Your task to perform on an android device: set the timer Image 0: 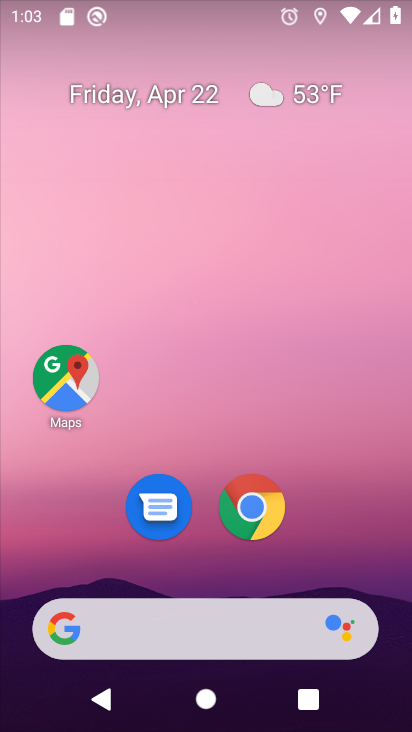
Step 0: drag from (357, 493) to (324, 142)
Your task to perform on an android device: set the timer Image 1: 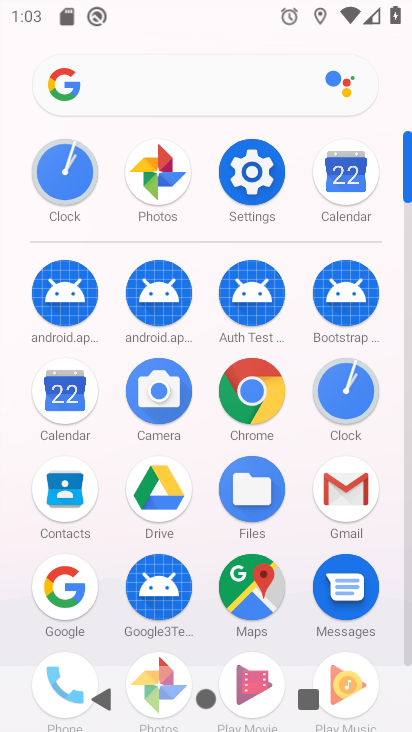
Step 1: click (351, 399)
Your task to perform on an android device: set the timer Image 2: 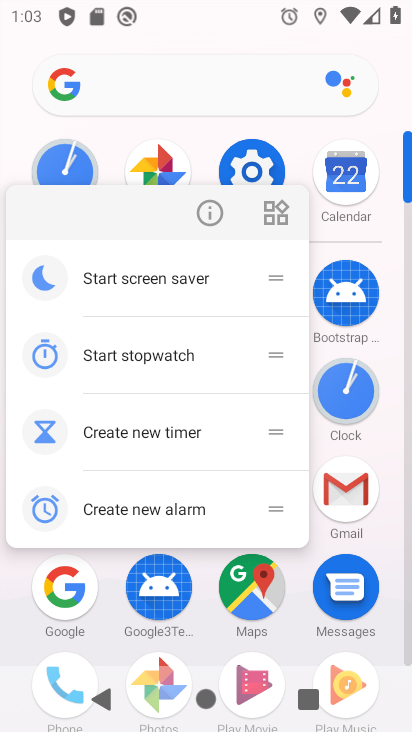
Step 2: click (351, 399)
Your task to perform on an android device: set the timer Image 3: 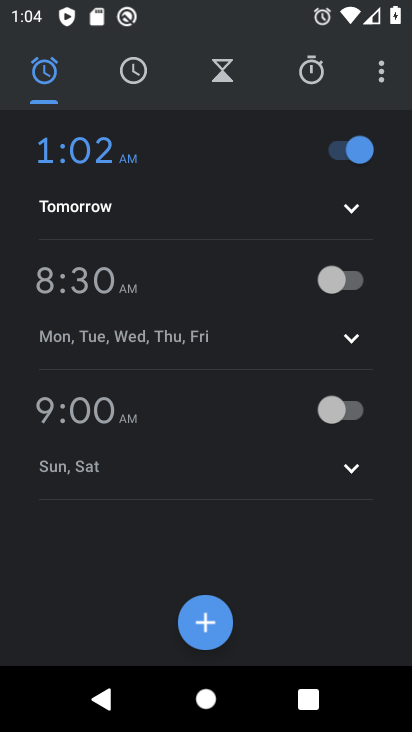
Step 3: click (225, 74)
Your task to perform on an android device: set the timer Image 4: 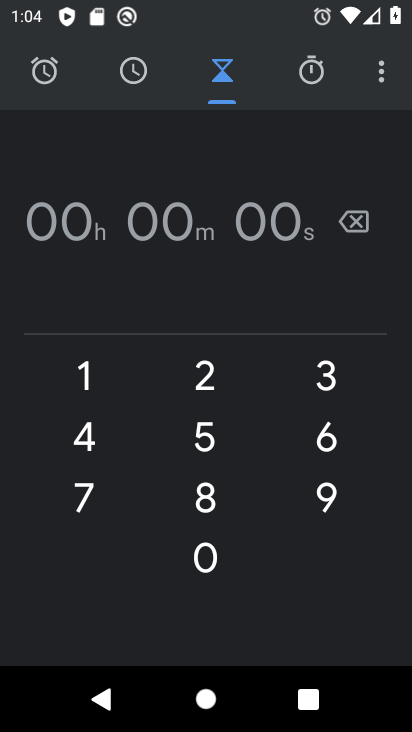
Step 4: click (89, 452)
Your task to perform on an android device: set the timer Image 5: 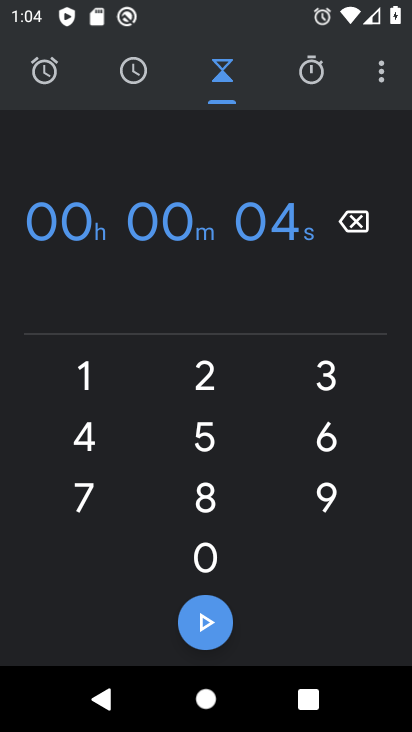
Step 5: click (89, 452)
Your task to perform on an android device: set the timer Image 6: 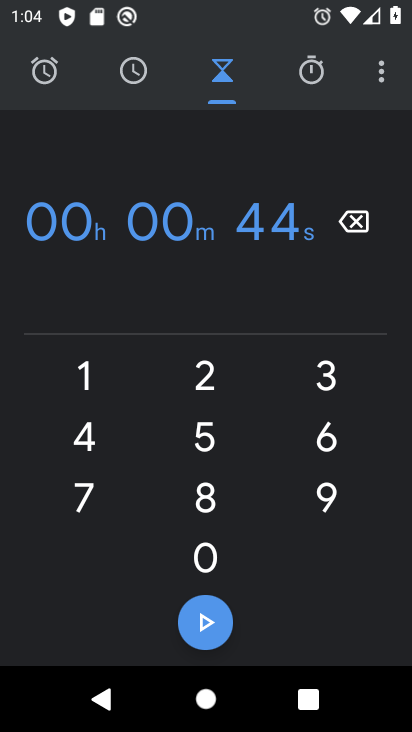
Step 6: click (334, 485)
Your task to perform on an android device: set the timer Image 7: 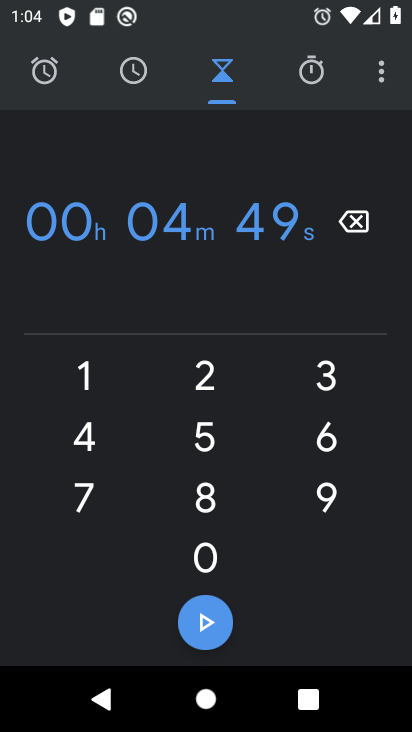
Step 7: click (330, 499)
Your task to perform on an android device: set the timer Image 8: 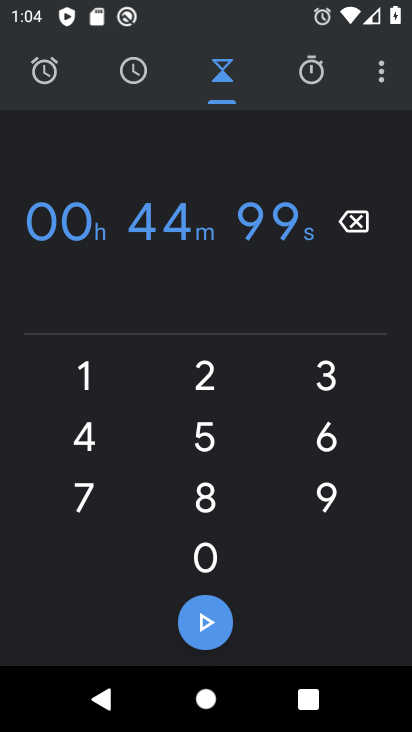
Step 8: click (210, 504)
Your task to perform on an android device: set the timer Image 9: 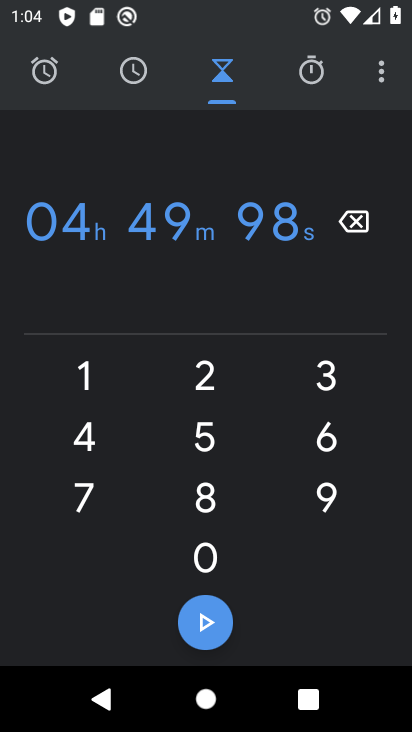
Step 9: click (206, 621)
Your task to perform on an android device: set the timer Image 10: 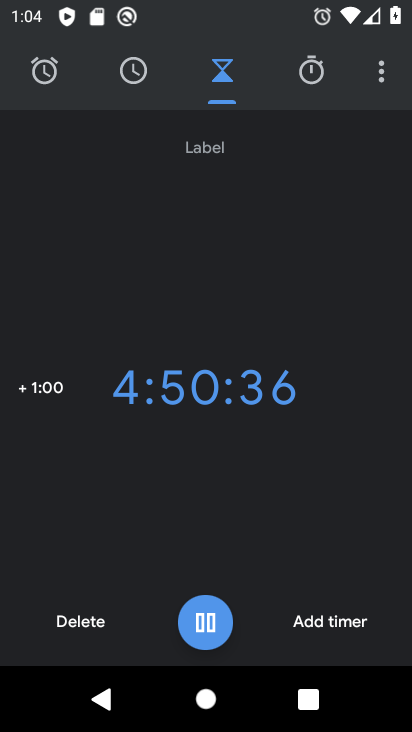
Step 10: click (329, 622)
Your task to perform on an android device: set the timer Image 11: 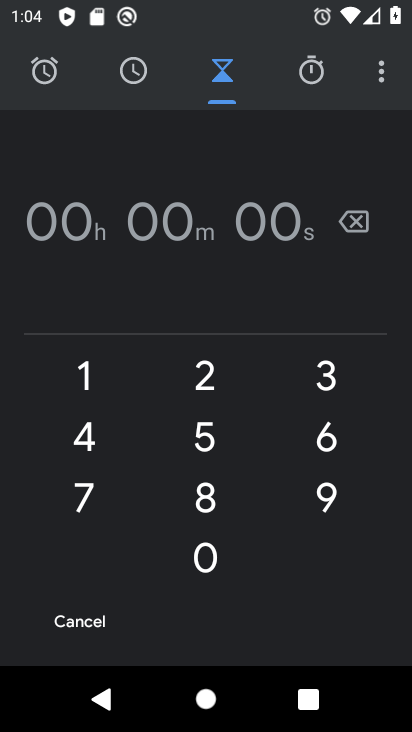
Step 11: task complete